Your task to perform on an android device: turn off notifications in google photos Image 0: 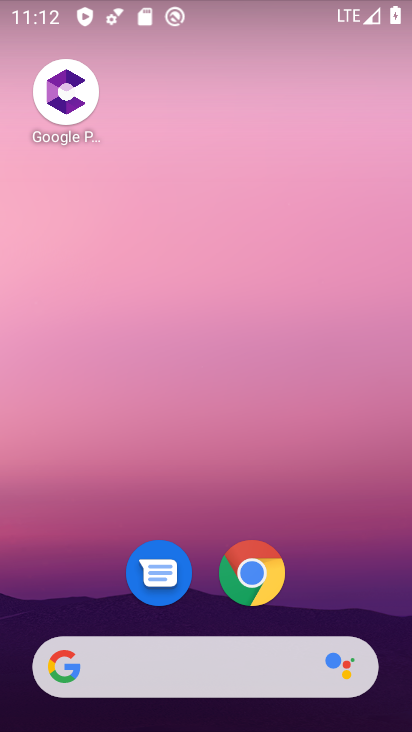
Step 0: drag from (319, 589) to (281, 26)
Your task to perform on an android device: turn off notifications in google photos Image 1: 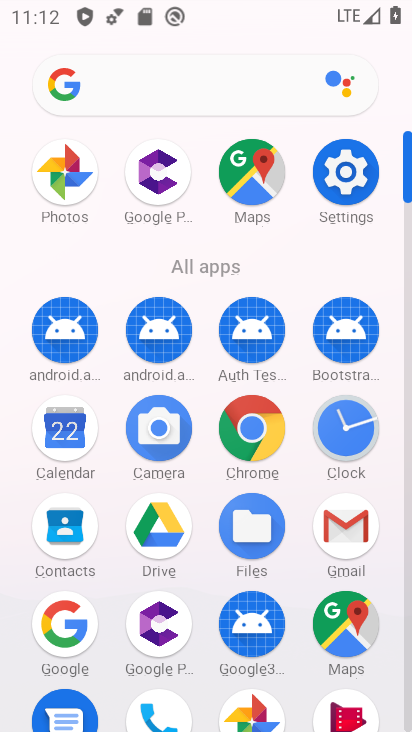
Step 1: drag from (224, 571) to (231, 306)
Your task to perform on an android device: turn off notifications in google photos Image 2: 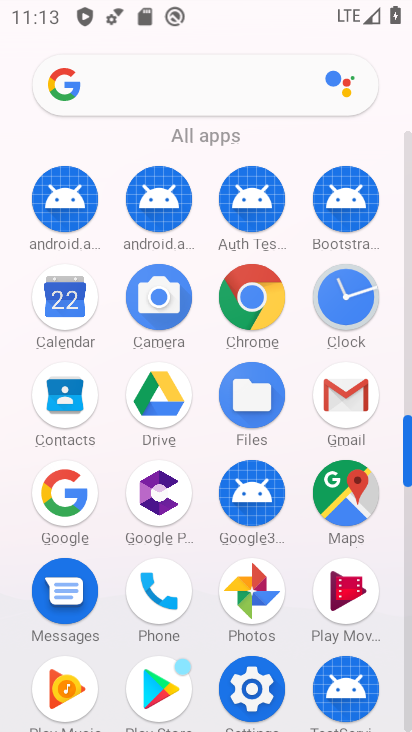
Step 2: click (251, 595)
Your task to perform on an android device: turn off notifications in google photos Image 3: 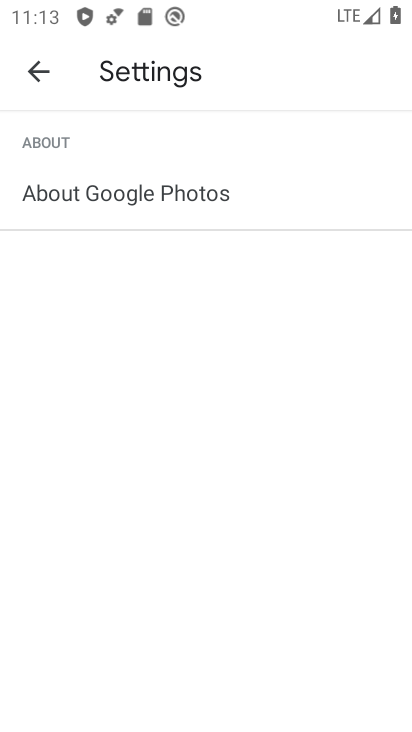
Step 3: click (44, 70)
Your task to perform on an android device: turn off notifications in google photos Image 4: 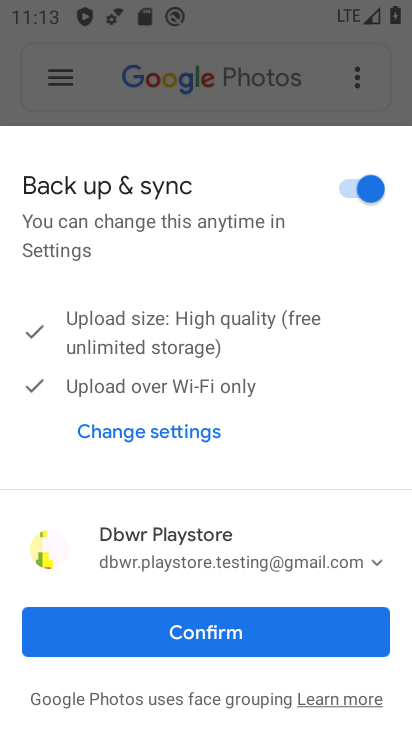
Step 4: click (155, 608)
Your task to perform on an android device: turn off notifications in google photos Image 5: 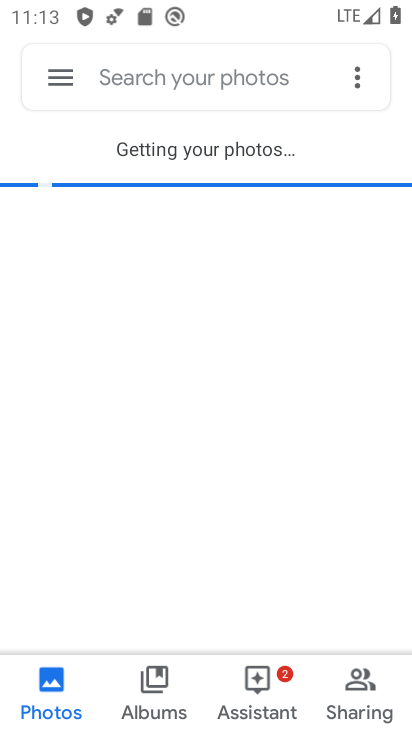
Step 5: click (58, 78)
Your task to perform on an android device: turn off notifications in google photos Image 6: 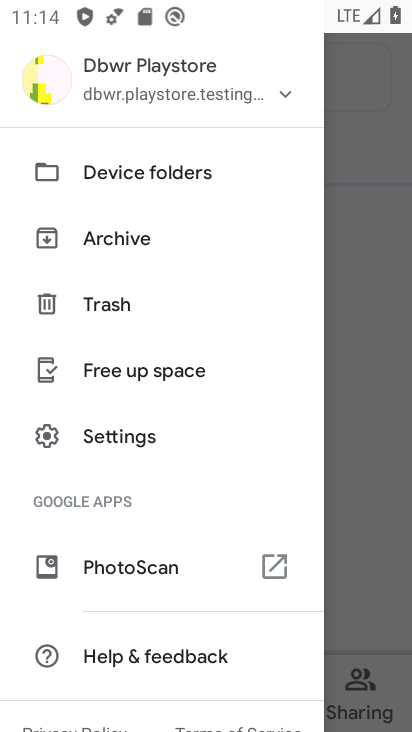
Step 6: click (137, 441)
Your task to perform on an android device: turn off notifications in google photos Image 7: 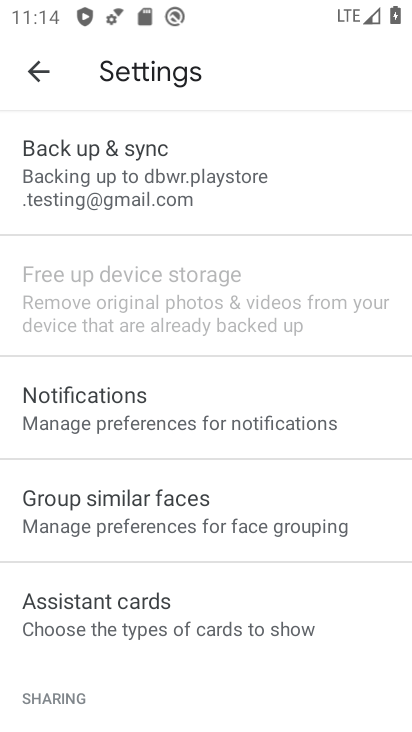
Step 7: click (79, 383)
Your task to perform on an android device: turn off notifications in google photos Image 8: 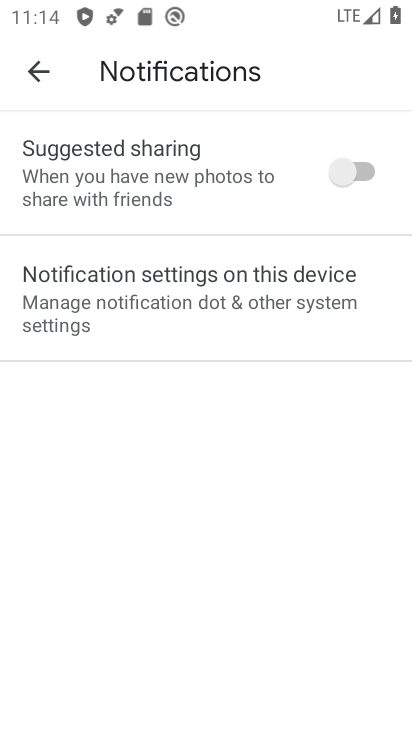
Step 8: click (106, 259)
Your task to perform on an android device: turn off notifications in google photos Image 9: 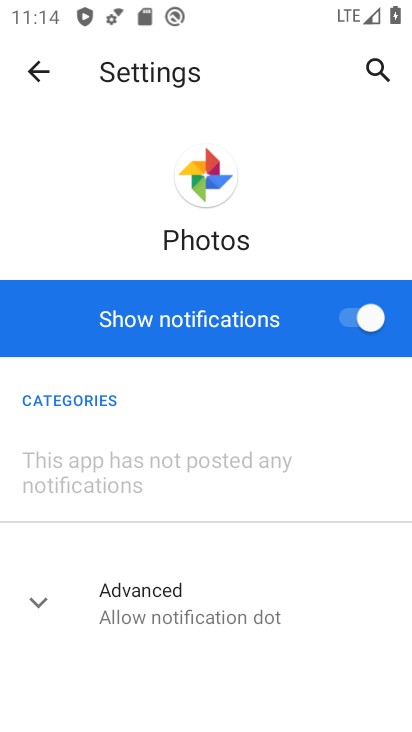
Step 9: click (345, 311)
Your task to perform on an android device: turn off notifications in google photos Image 10: 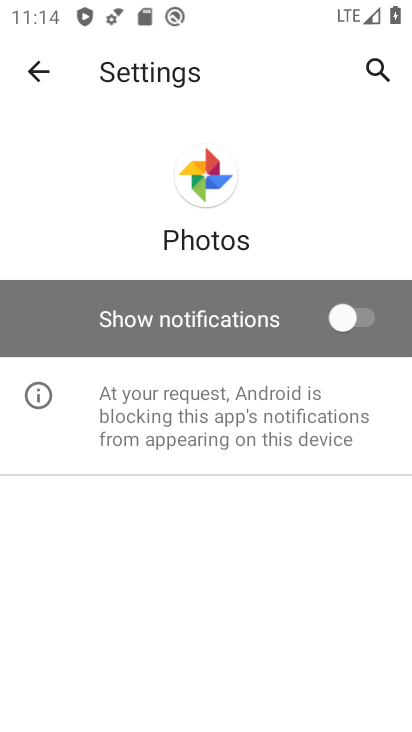
Step 10: task complete